Your task to perform on an android device: Open CNN.com Image 0: 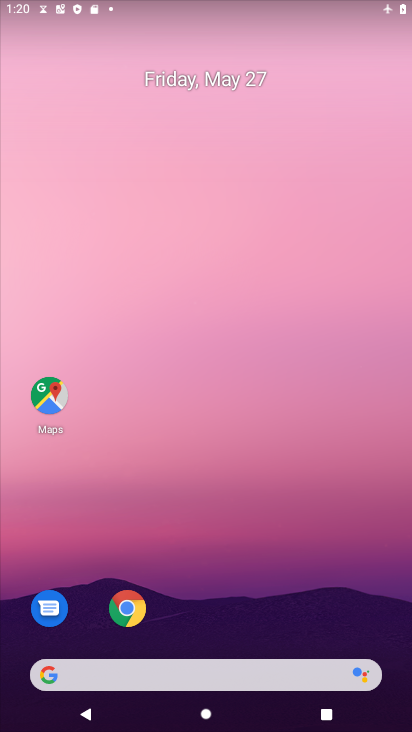
Step 0: click (119, 615)
Your task to perform on an android device: Open CNN.com Image 1: 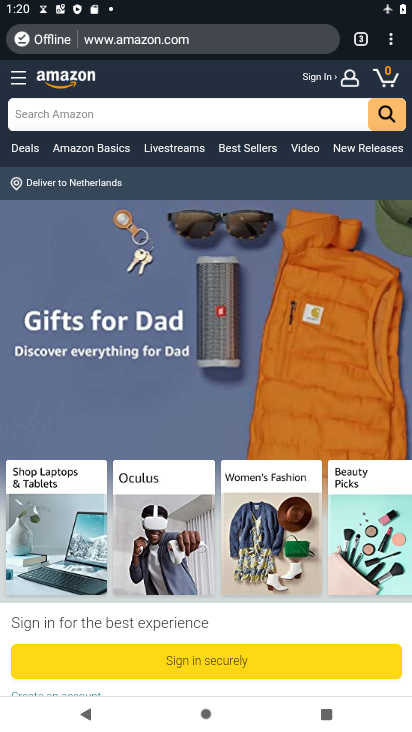
Step 1: click (359, 33)
Your task to perform on an android device: Open CNN.com Image 2: 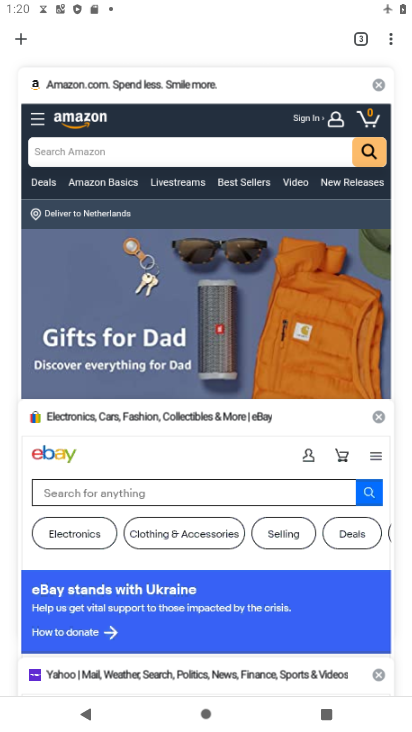
Step 2: click (11, 33)
Your task to perform on an android device: Open CNN.com Image 3: 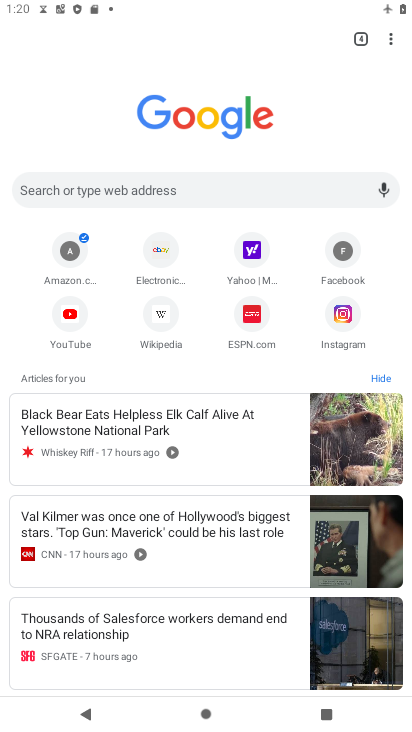
Step 3: click (138, 194)
Your task to perform on an android device: Open CNN.com Image 4: 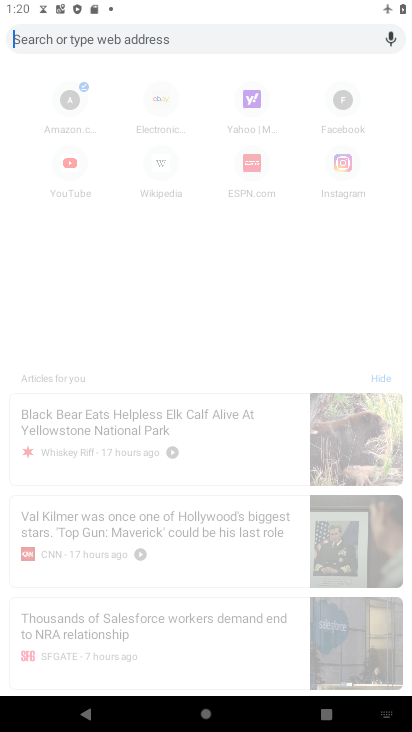
Step 4: type "cnn.com"
Your task to perform on an android device: Open CNN.com Image 5: 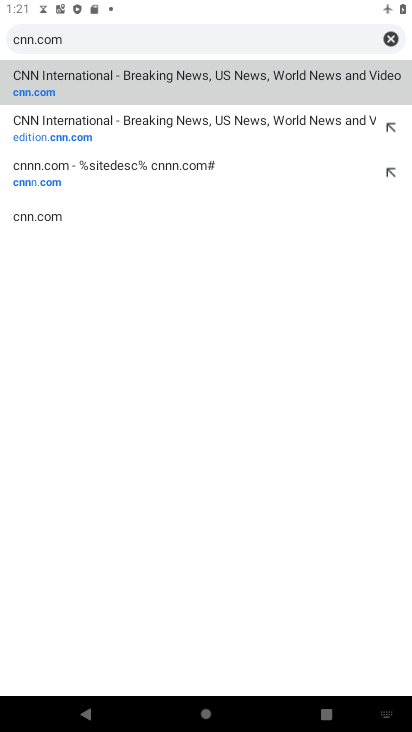
Step 5: click (142, 77)
Your task to perform on an android device: Open CNN.com Image 6: 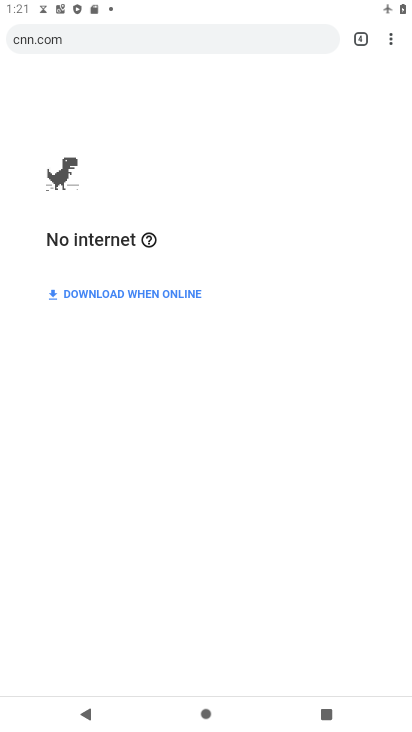
Step 6: drag from (375, 4) to (226, 470)
Your task to perform on an android device: Open CNN.com Image 7: 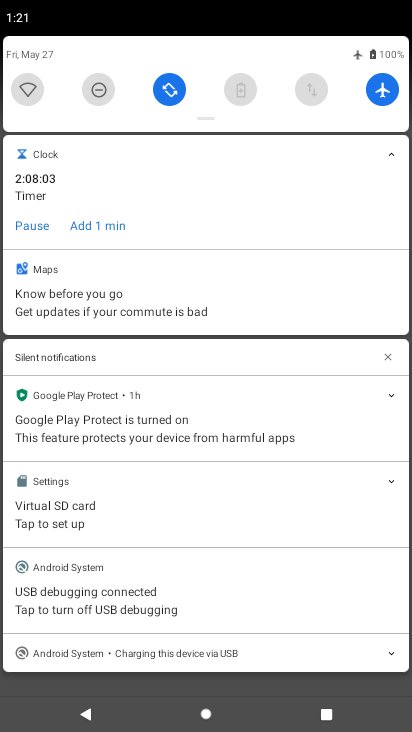
Step 7: click (380, 87)
Your task to perform on an android device: Open CNN.com Image 8: 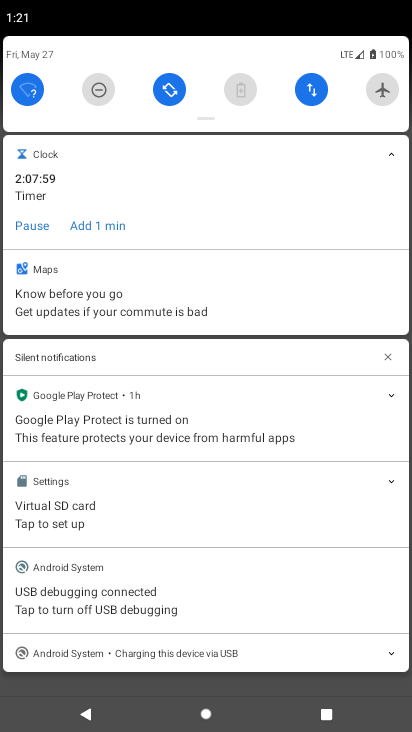
Step 8: task complete